Your task to perform on an android device: What's the weather? Image 0: 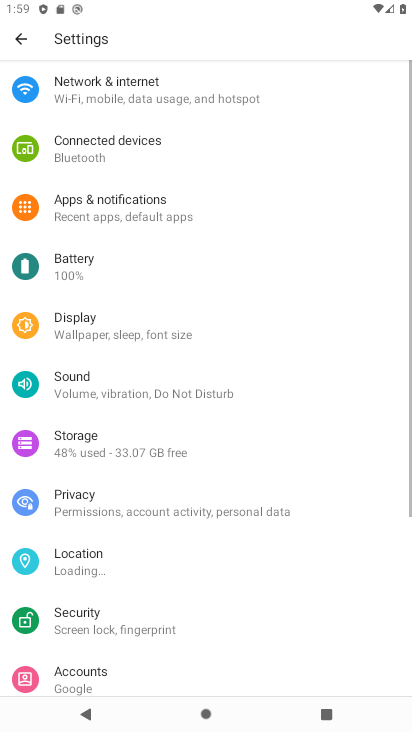
Step 0: press home button
Your task to perform on an android device: What's the weather? Image 1: 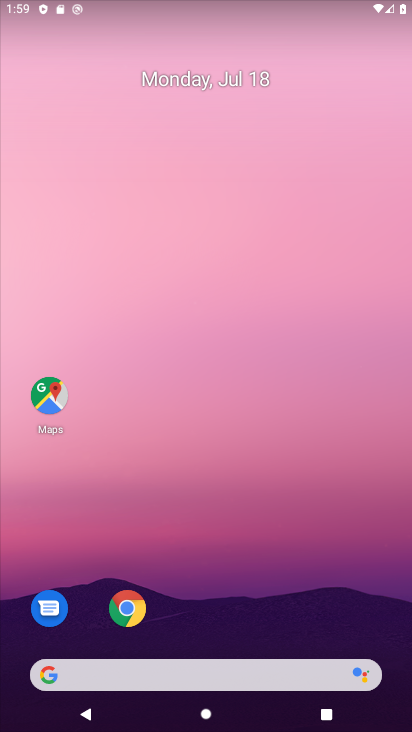
Step 1: drag from (3, 233) to (384, 224)
Your task to perform on an android device: What's the weather? Image 2: 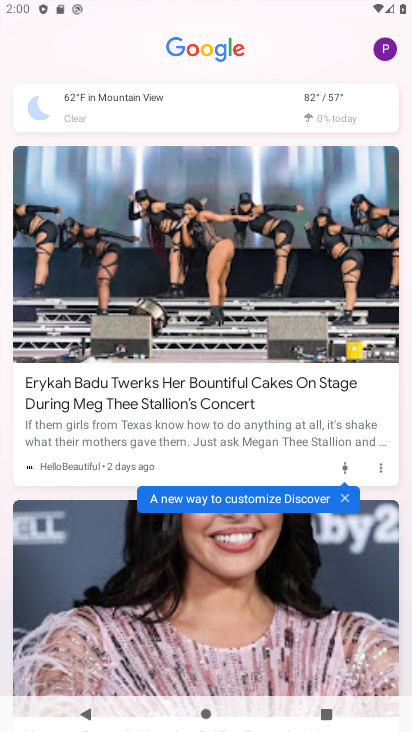
Step 2: click (266, 107)
Your task to perform on an android device: What's the weather? Image 3: 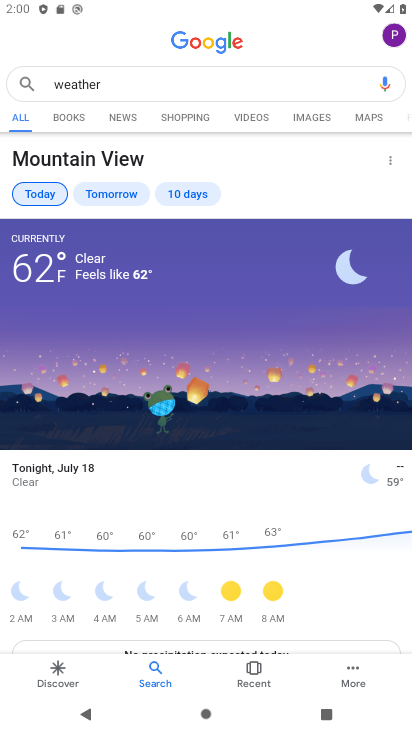
Step 3: task complete